Your task to perform on an android device: allow cookies in the chrome app Image 0: 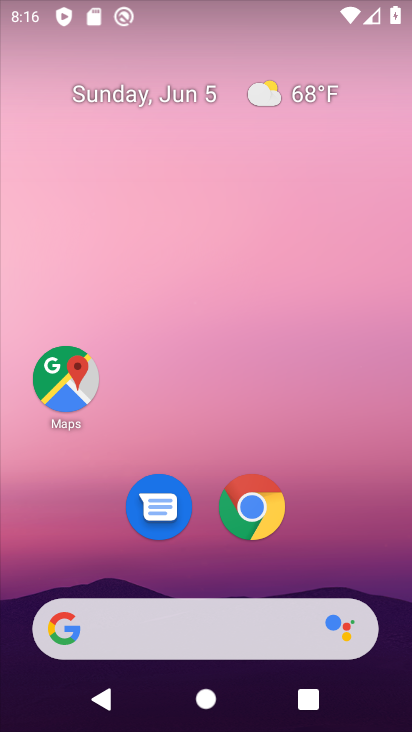
Step 0: click (258, 505)
Your task to perform on an android device: allow cookies in the chrome app Image 1: 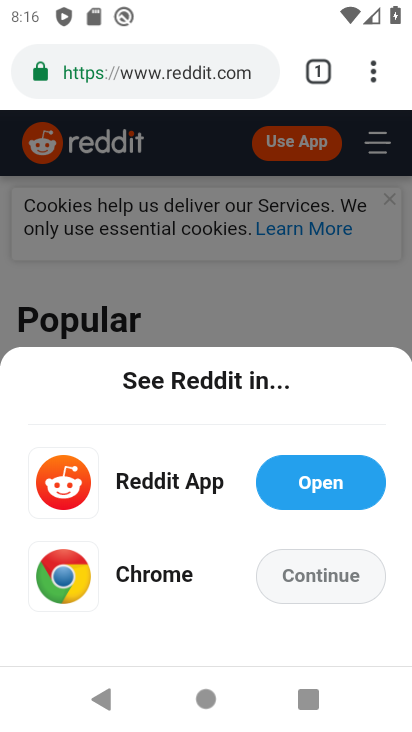
Step 1: click (376, 80)
Your task to perform on an android device: allow cookies in the chrome app Image 2: 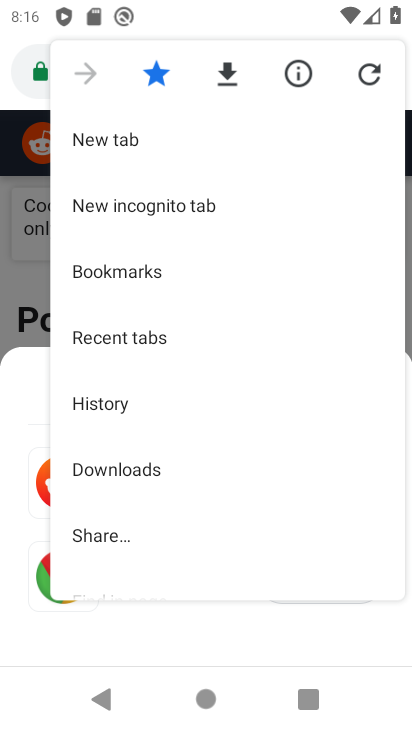
Step 2: drag from (172, 539) to (180, 201)
Your task to perform on an android device: allow cookies in the chrome app Image 3: 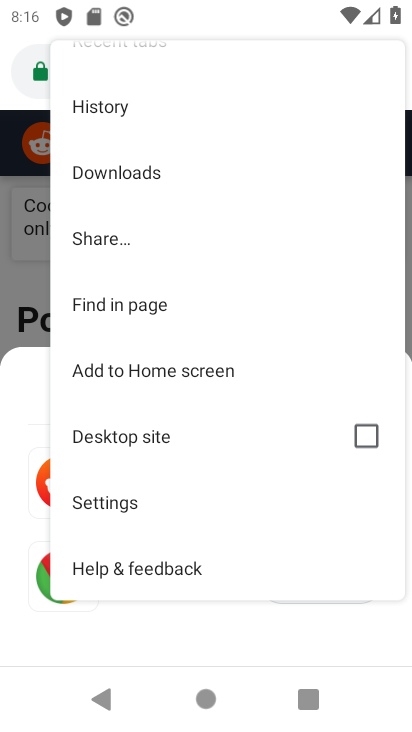
Step 3: click (127, 504)
Your task to perform on an android device: allow cookies in the chrome app Image 4: 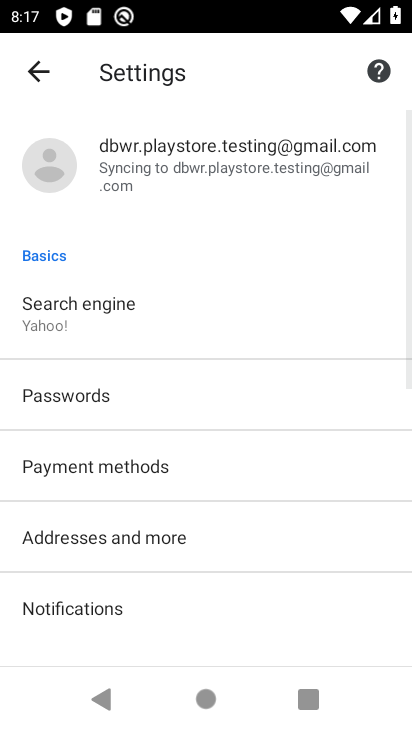
Step 4: drag from (152, 603) to (167, 325)
Your task to perform on an android device: allow cookies in the chrome app Image 5: 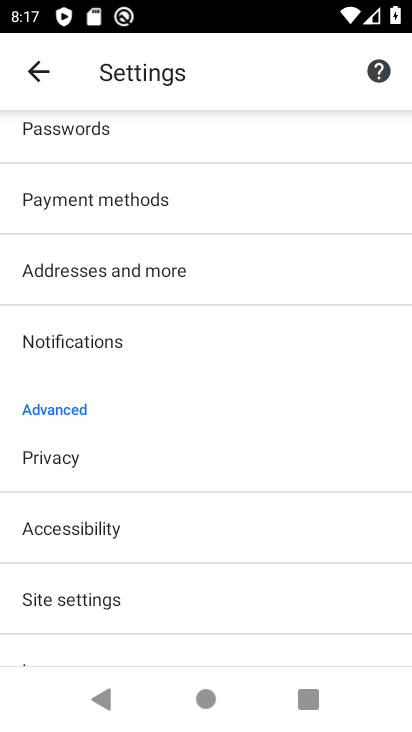
Step 5: click (101, 597)
Your task to perform on an android device: allow cookies in the chrome app Image 6: 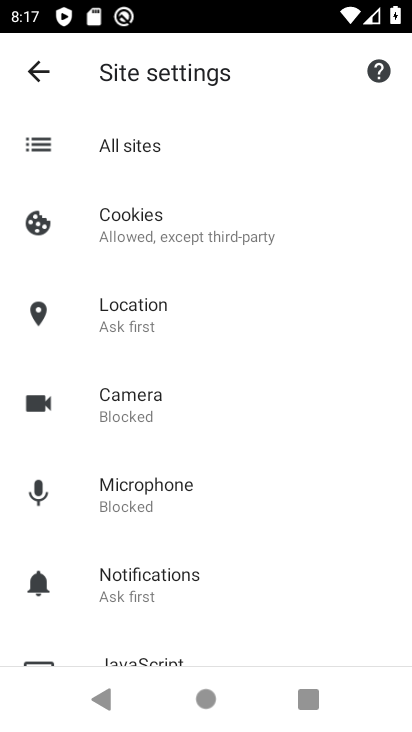
Step 6: click (134, 213)
Your task to perform on an android device: allow cookies in the chrome app Image 7: 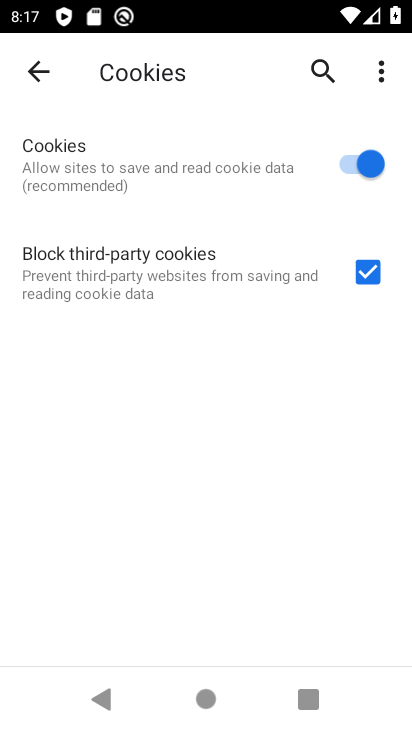
Step 7: task complete